Your task to perform on an android device: turn on the 12-hour format for clock Image 0: 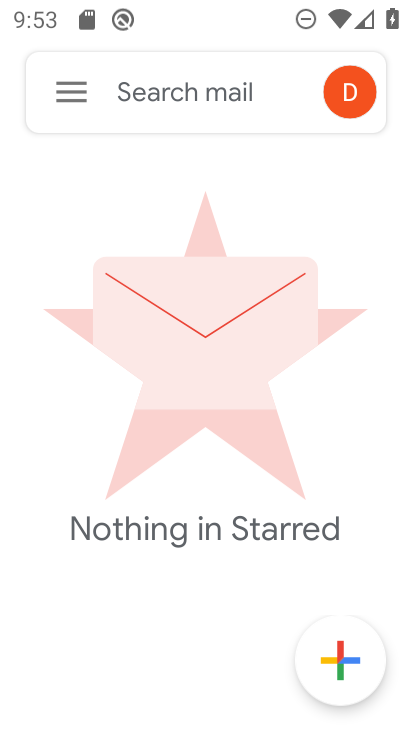
Step 0: press home button
Your task to perform on an android device: turn on the 12-hour format for clock Image 1: 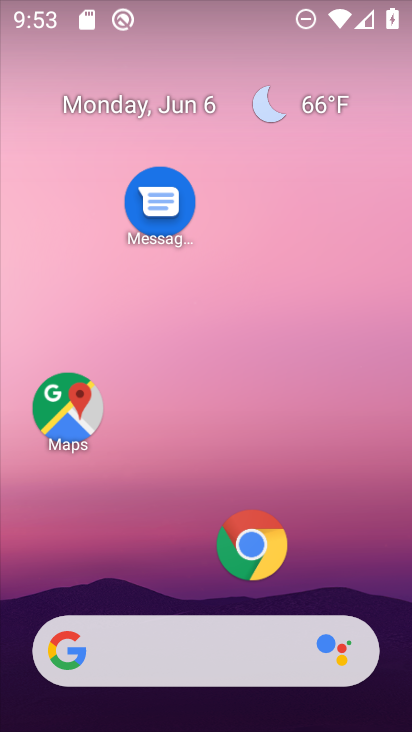
Step 1: drag from (159, 601) to (157, 189)
Your task to perform on an android device: turn on the 12-hour format for clock Image 2: 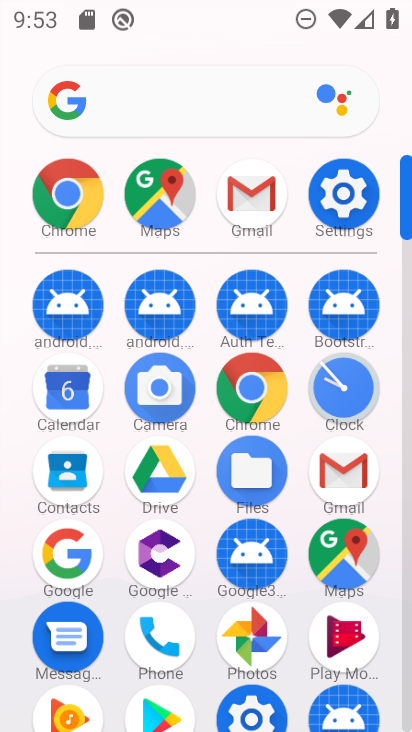
Step 2: click (348, 396)
Your task to perform on an android device: turn on the 12-hour format for clock Image 3: 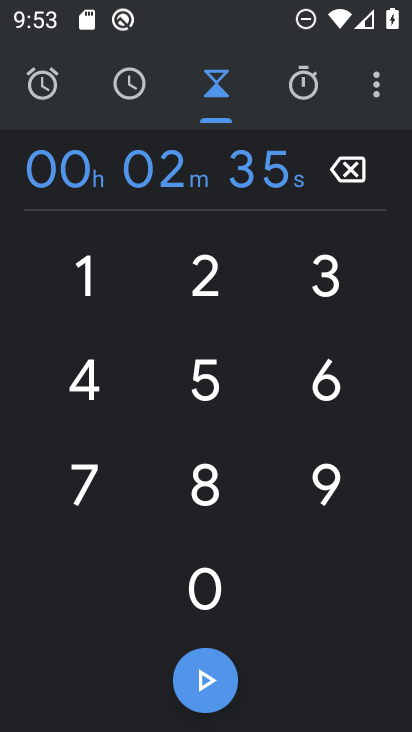
Step 3: click (380, 88)
Your task to perform on an android device: turn on the 12-hour format for clock Image 4: 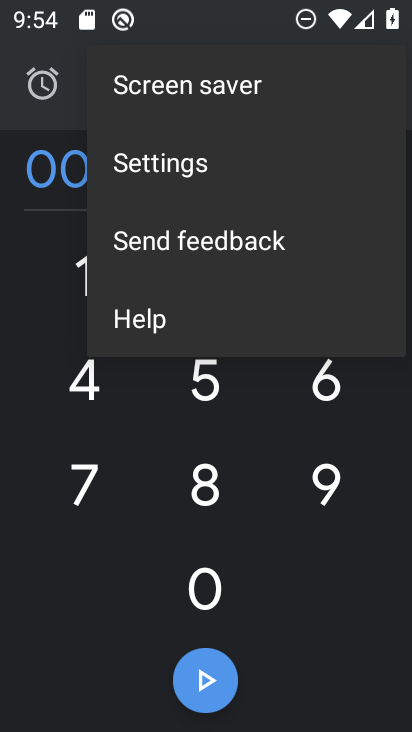
Step 4: click (190, 183)
Your task to perform on an android device: turn on the 12-hour format for clock Image 5: 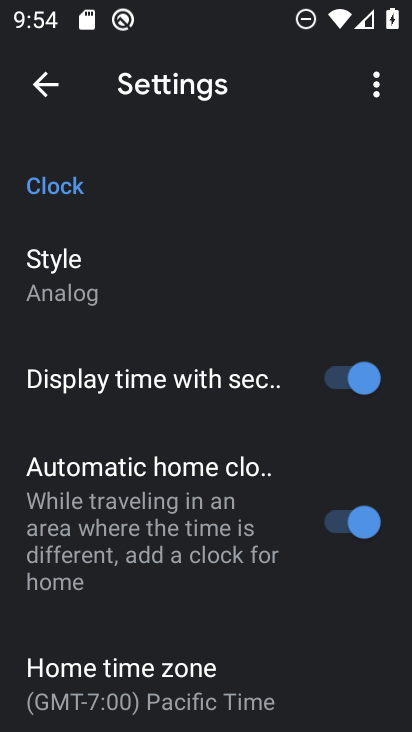
Step 5: drag from (267, 619) to (206, 217)
Your task to perform on an android device: turn on the 12-hour format for clock Image 6: 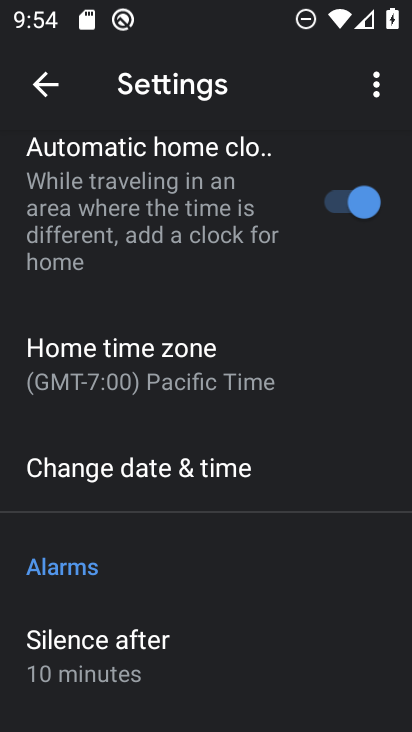
Step 6: click (187, 473)
Your task to perform on an android device: turn on the 12-hour format for clock Image 7: 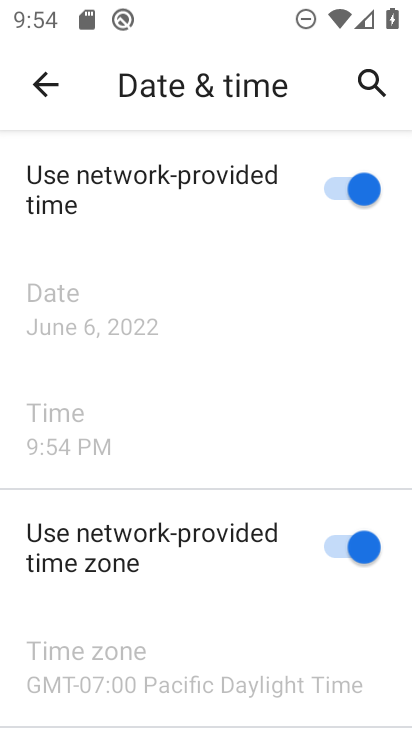
Step 7: task complete